Your task to perform on an android device: refresh tabs in the chrome app Image 0: 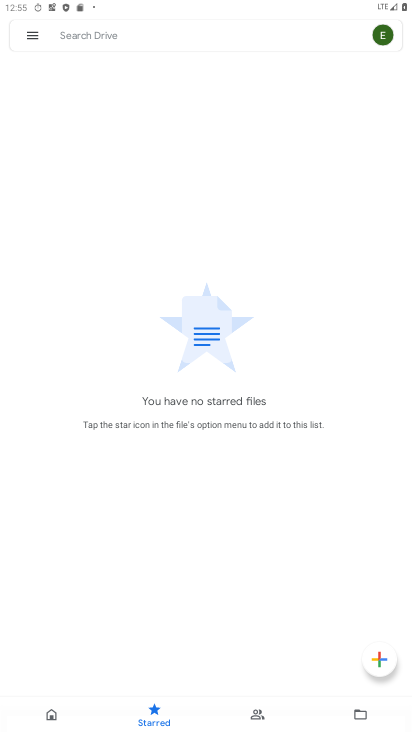
Step 0: press home button
Your task to perform on an android device: refresh tabs in the chrome app Image 1: 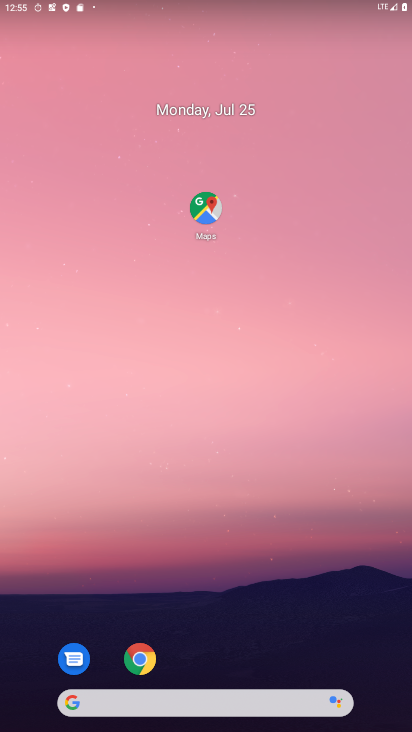
Step 1: drag from (34, 684) to (213, 112)
Your task to perform on an android device: refresh tabs in the chrome app Image 2: 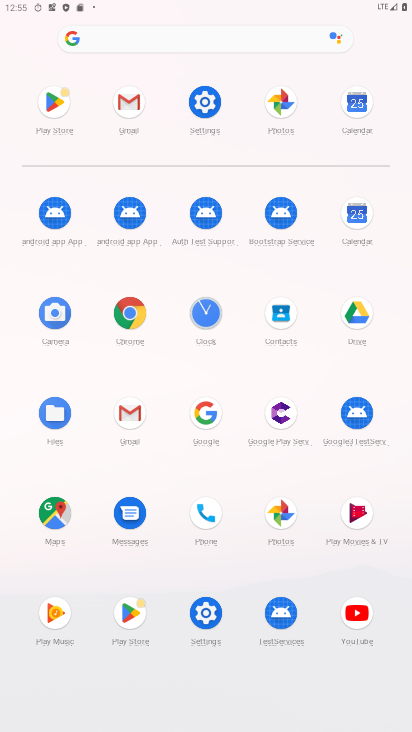
Step 2: click (139, 327)
Your task to perform on an android device: refresh tabs in the chrome app Image 3: 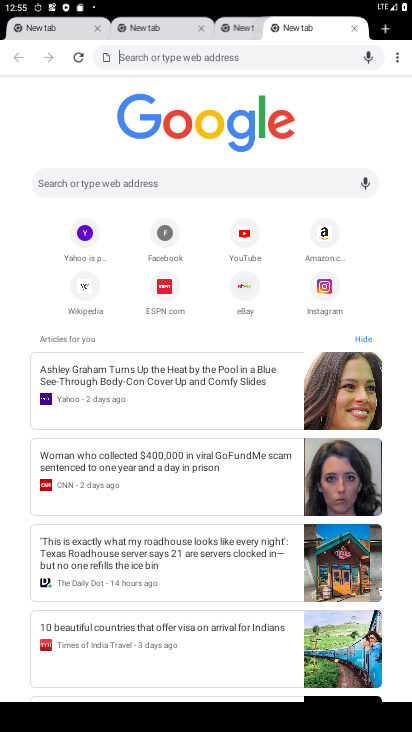
Step 3: click (391, 30)
Your task to perform on an android device: refresh tabs in the chrome app Image 4: 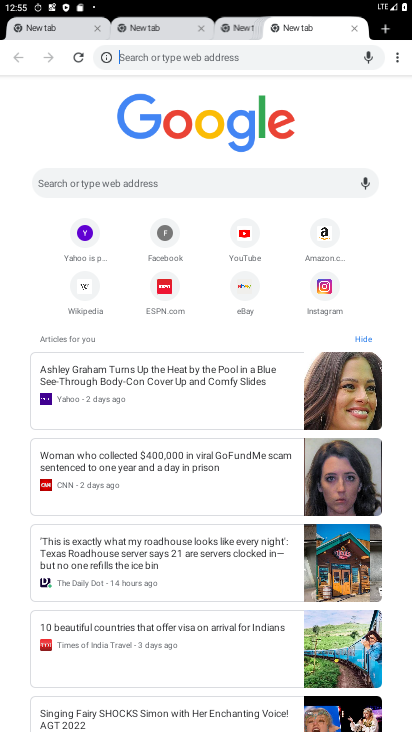
Step 4: task complete